Your task to perform on an android device: Search for dell xps on ebay.com, select the first entry, and add it to the cart. Image 0: 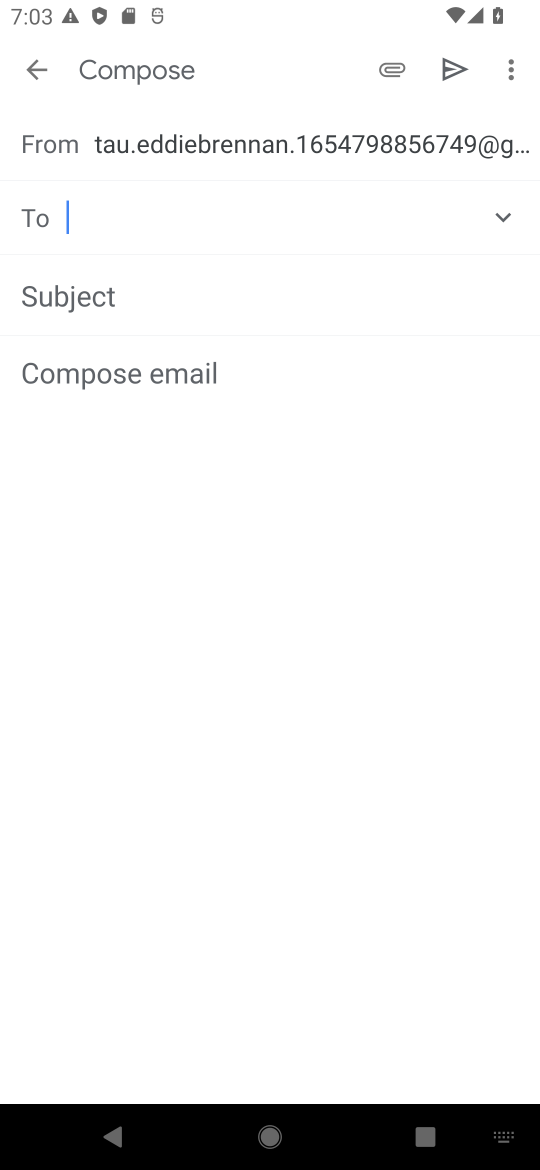
Step 0: press home button
Your task to perform on an android device: Search for dell xps on ebay.com, select the first entry, and add it to the cart. Image 1: 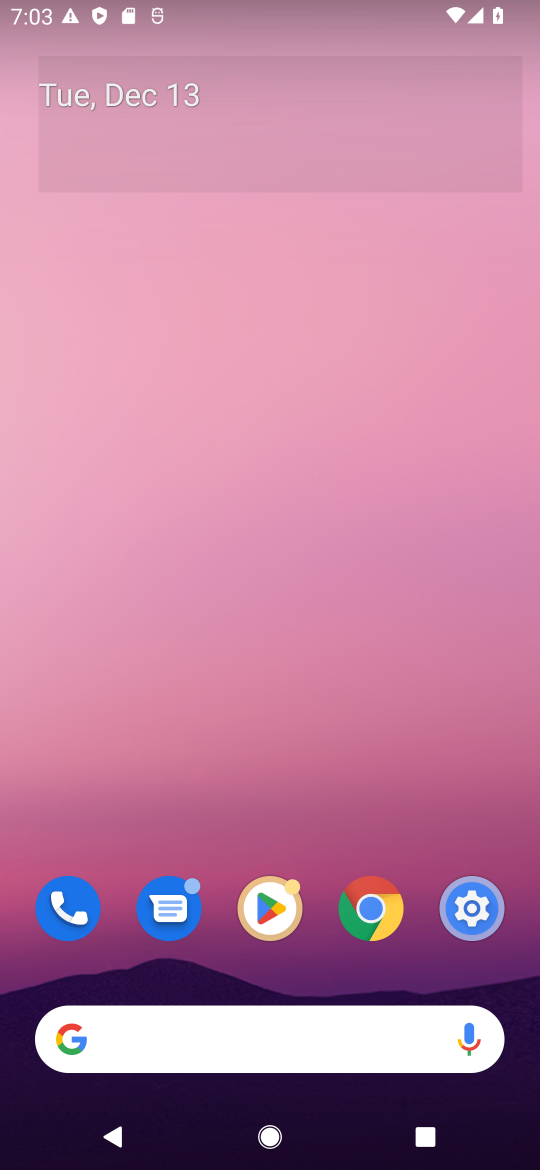
Step 1: click (104, 1050)
Your task to perform on an android device: Search for dell xps on ebay.com, select the first entry, and add it to the cart. Image 2: 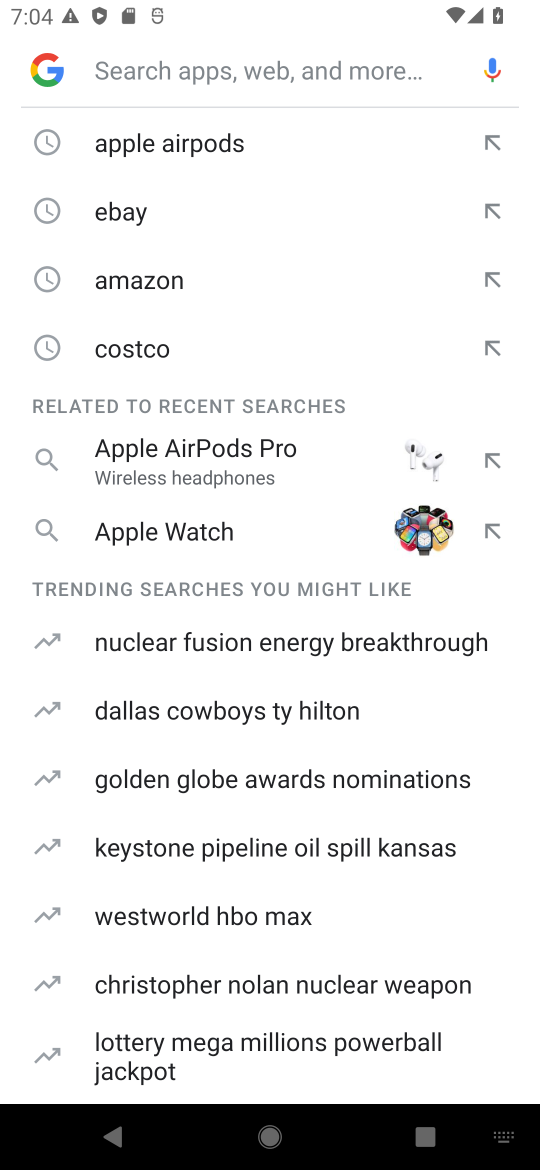
Step 2: press enter
Your task to perform on an android device: Search for dell xps on ebay.com, select the first entry, and add it to the cart. Image 3: 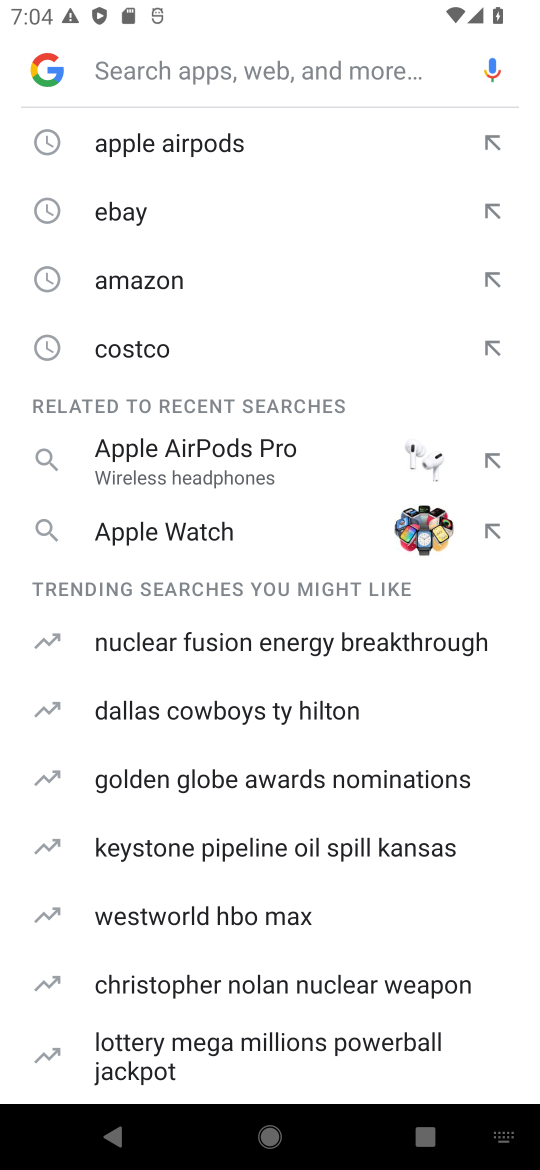
Step 3: type "ebay.com"
Your task to perform on an android device: Search for dell xps on ebay.com, select the first entry, and add it to the cart. Image 4: 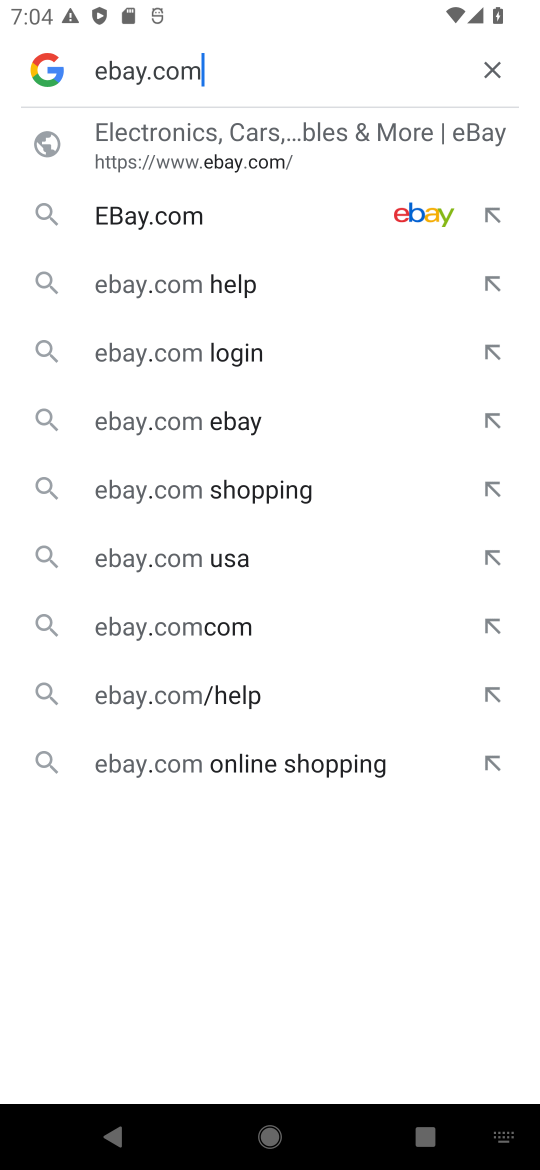
Step 4: press enter
Your task to perform on an android device: Search for dell xps on ebay.com, select the first entry, and add it to the cart. Image 5: 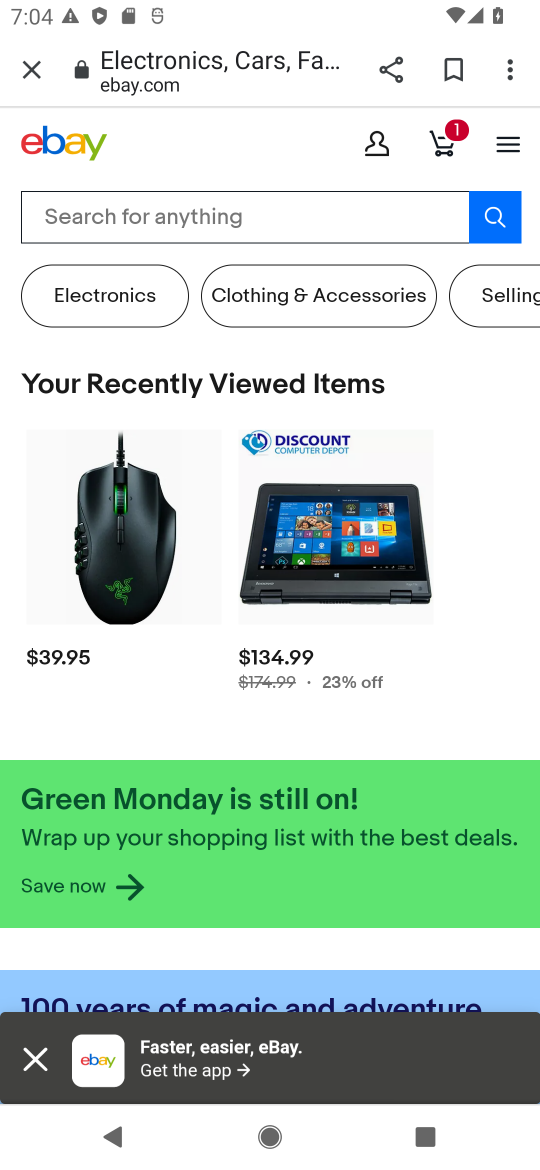
Step 5: click (282, 219)
Your task to perform on an android device: Search for dell xps on ebay.com, select the first entry, and add it to the cart. Image 6: 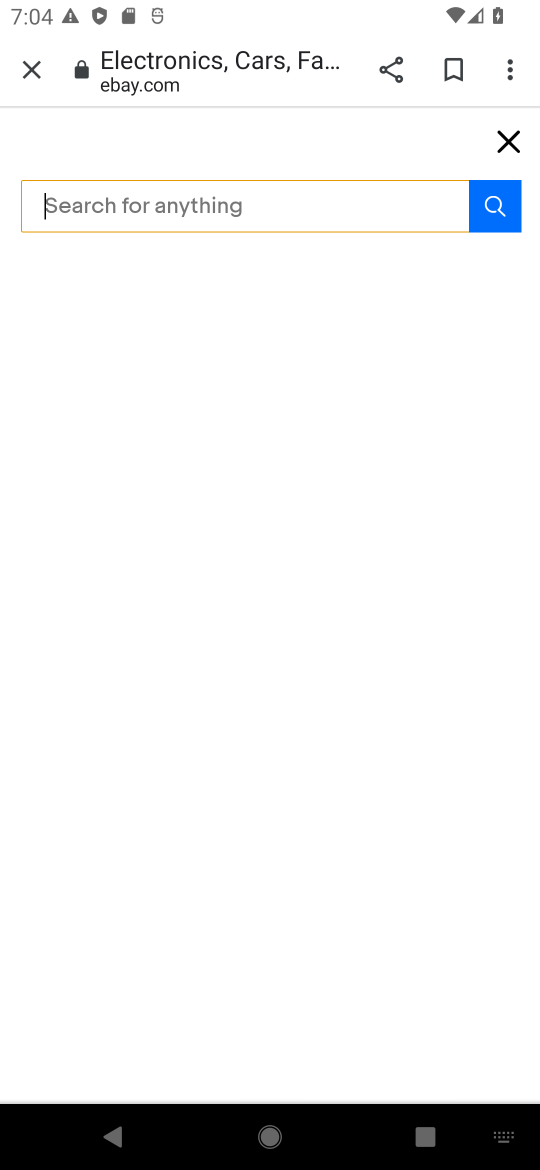
Step 6: type "dell xps"
Your task to perform on an android device: Search for dell xps on ebay.com, select the first entry, and add it to the cart. Image 7: 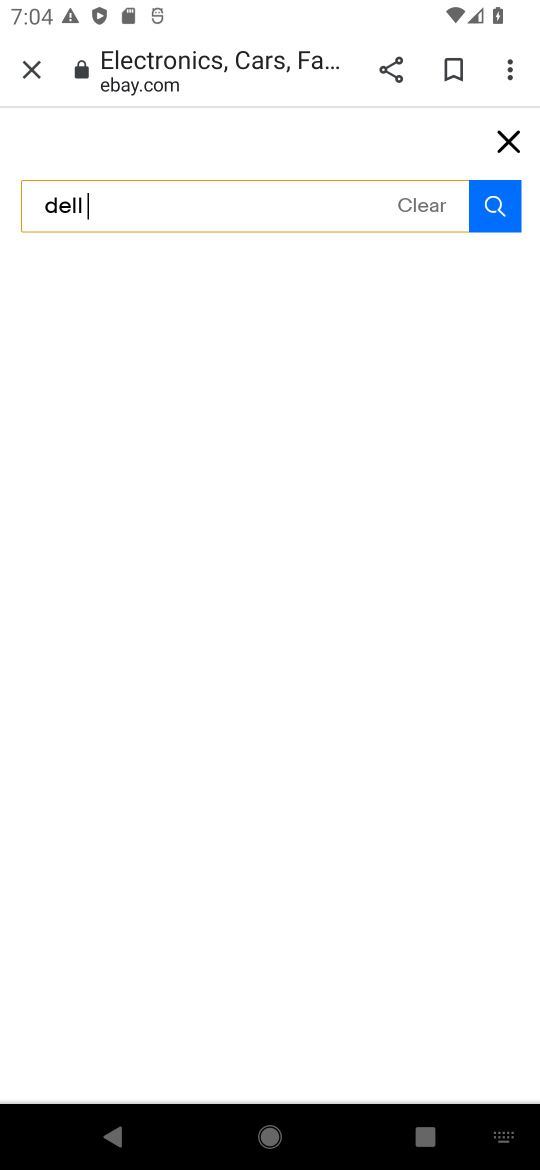
Step 7: press enter
Your task to perform on an android device: Search for dell xps on ebay.com, select the first entry, and add it to the cart. Image 8: 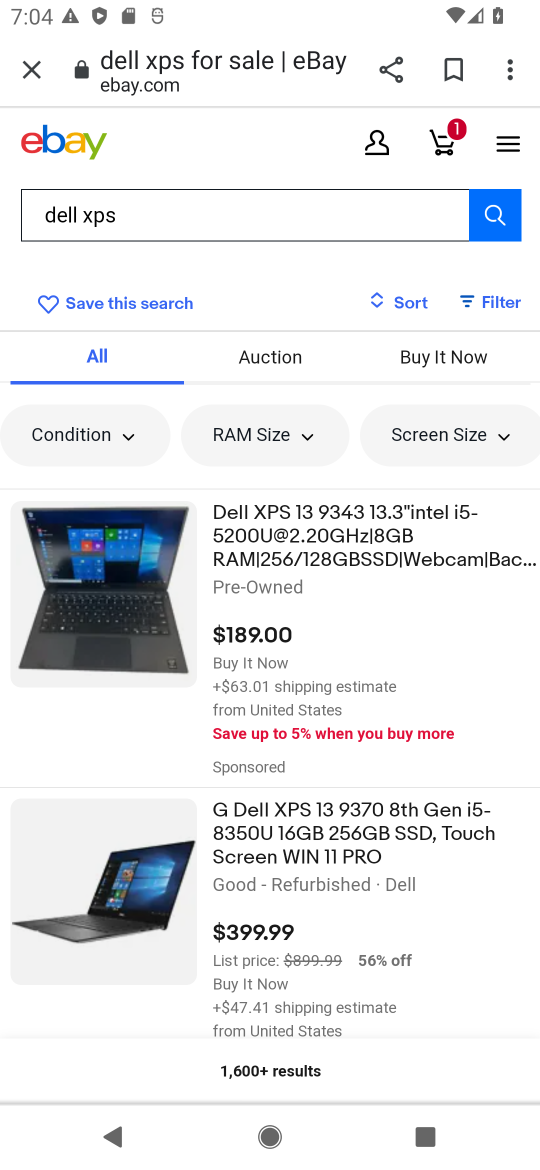
Step 8: click (277, 537)
Your task to perform on an android device: Search for dell xps on ebay.com, select the first entry, and add it to the cart. Image 9: 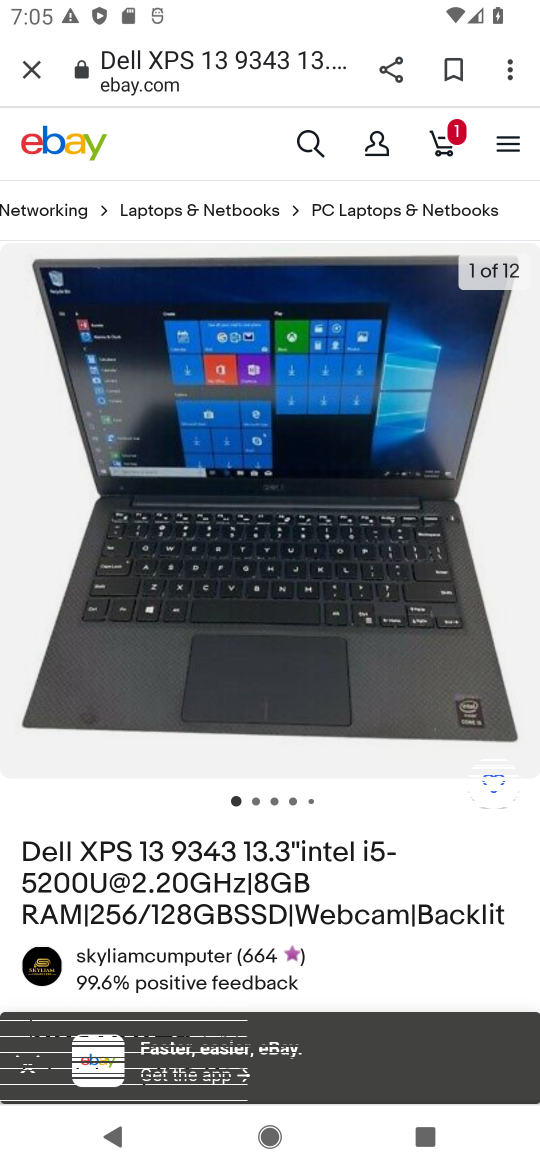
Step 9: drag from (367, 910) to (367, 496)
Your task to perform on an android device: Search for dell xps on ebay.com, select the first entry, and add it to the cart. Image 10: 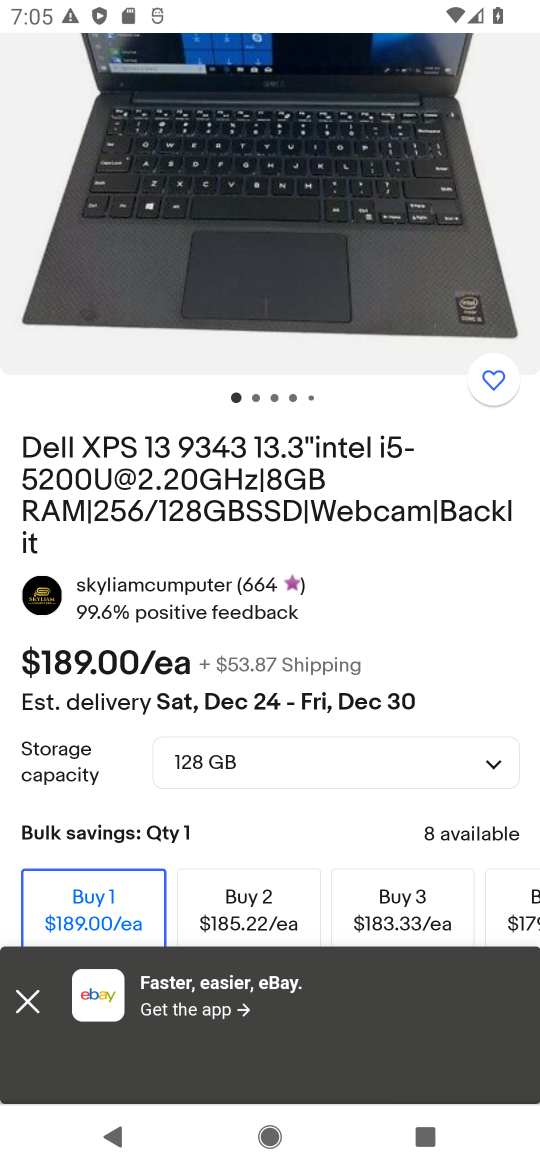
Step 10: drag from (310, 919) to (345, 321)
Your task to perform on an android device: Search for dell xps on ebay.com, select the first entry, and add it to the cart. Image 11: 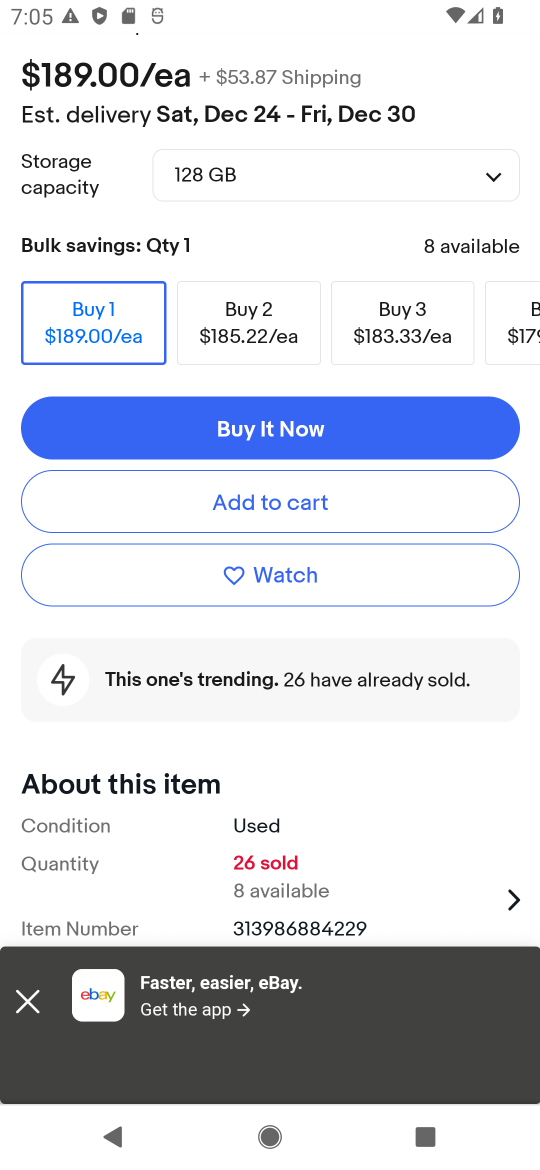
Step 11: click (22, 1005)
Your task to perform on an android device: Search for dell xps on ebay.com, select the first entry, and add it to the cart. Image 12: 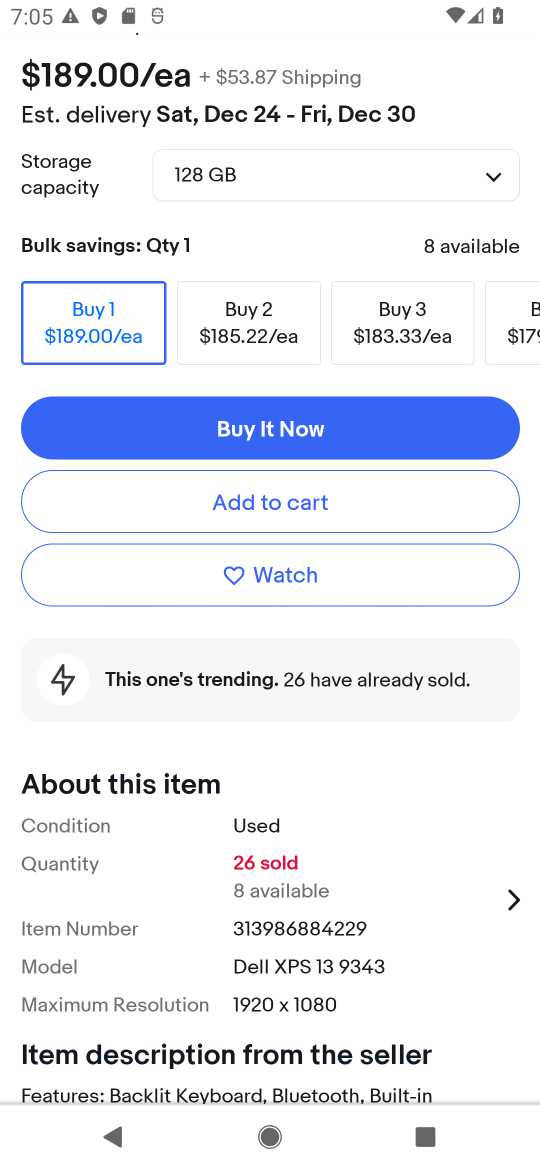
Step 12: click (256, 498)
Your task to perform on an android device: Search for dell xps on ebay.com, select the first entry, and add it to the cart. Image 13: 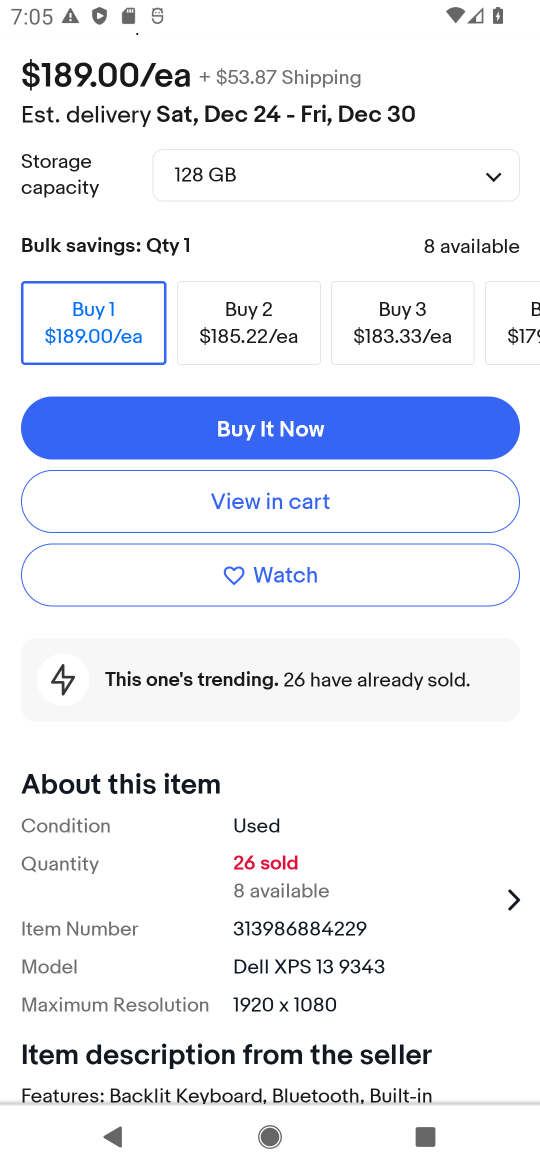
Step 13: task complete